Your task to perform on an android device: install app "Adobe Express: Graphic Design" Image 0: 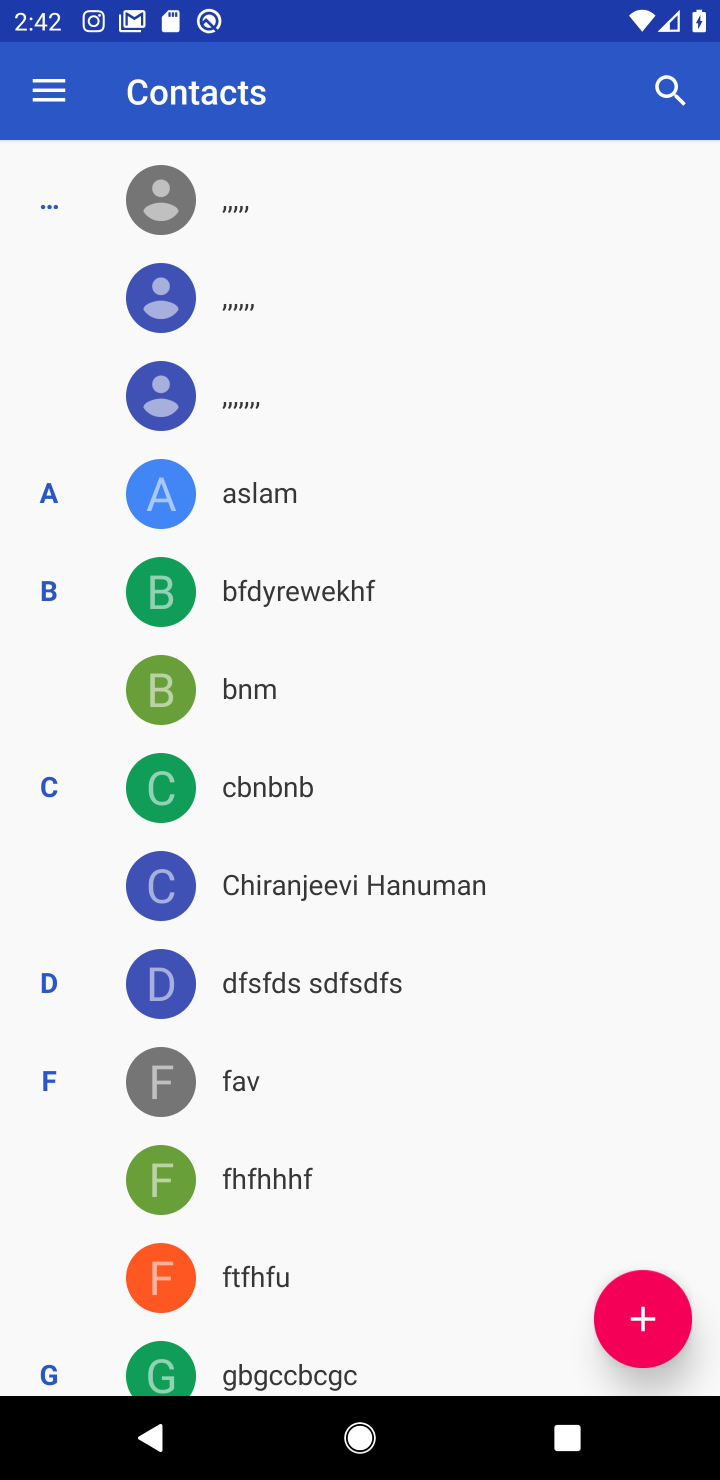
Step 0: press home button
Your task to perform on an android device: install app "Adobe Express: Graphic Design" Image 1: 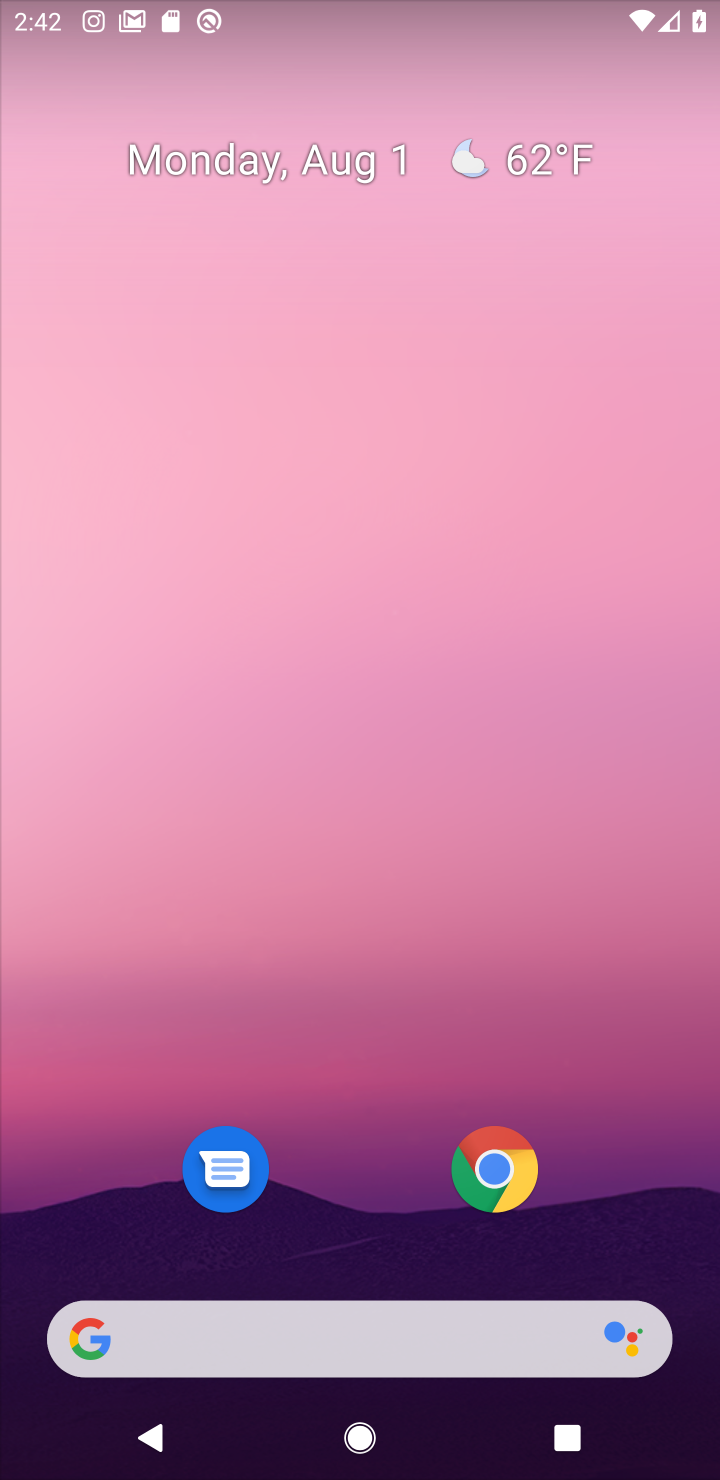
Step 1: drag from (338, 1013) to (346, 220)
Your task to perform on an android device: install app "Adobe Express: Graphic Design" Image 2: 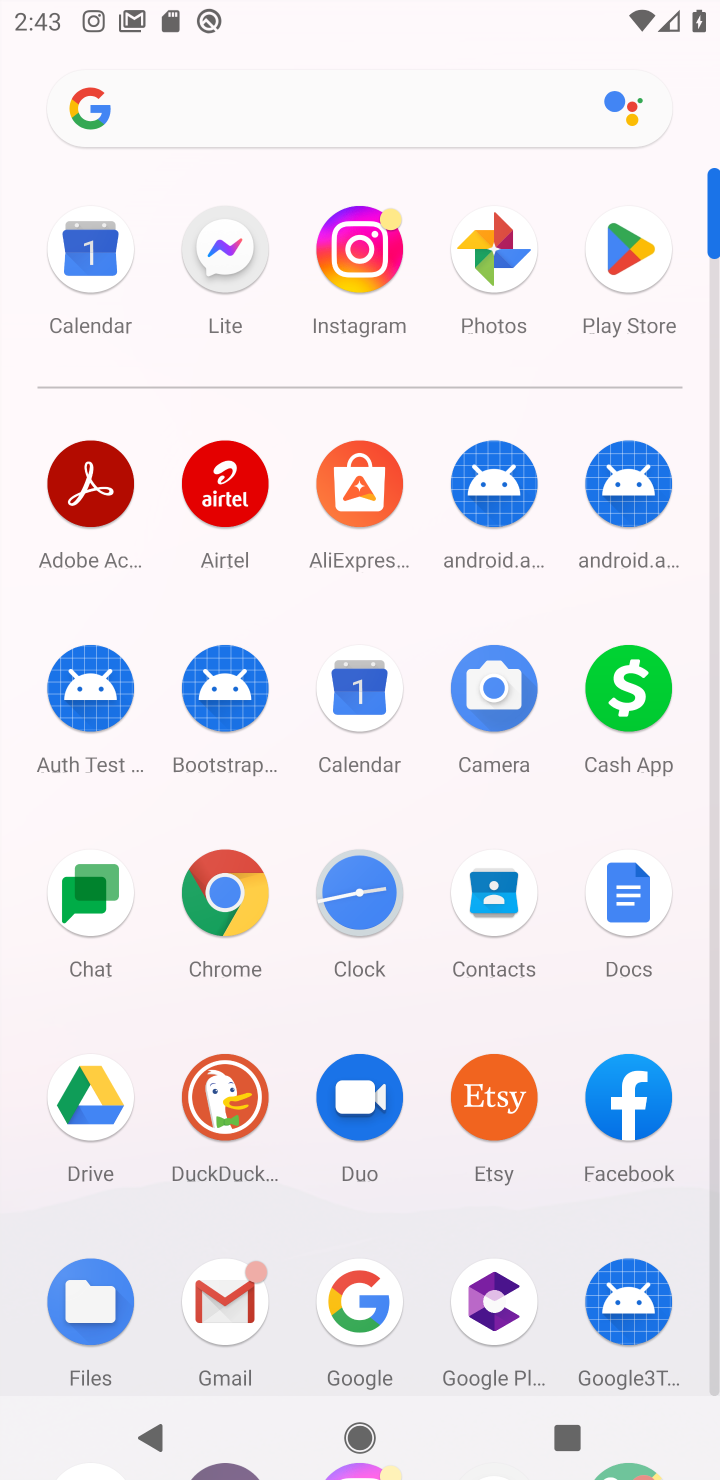
Step 2: click (644, 265)
Your task to perform on an android device: install app "Adobe Express: Graphic Design" Image 3: 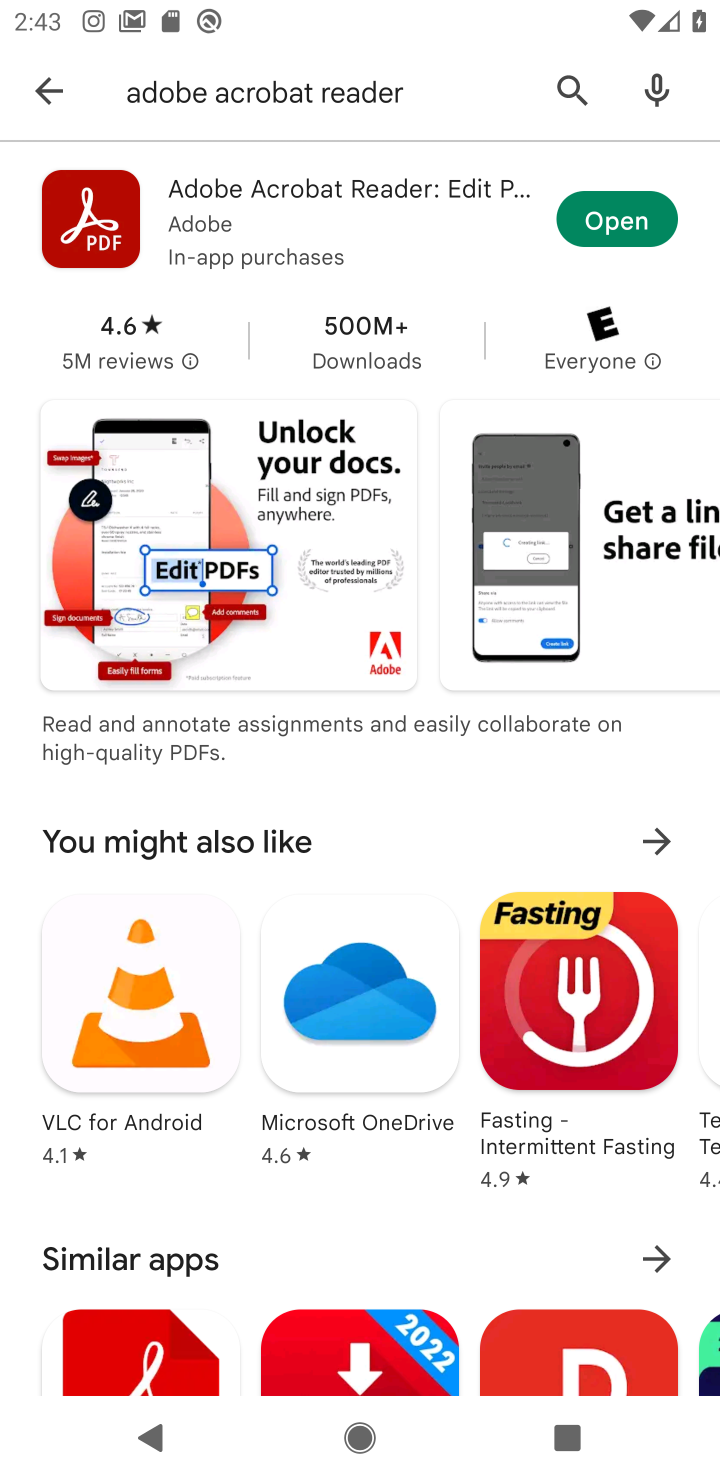
Step 3: click (47, 99)
Your task to perform on an android device: install app "Adobe Express: Graphic Design" Image 4: 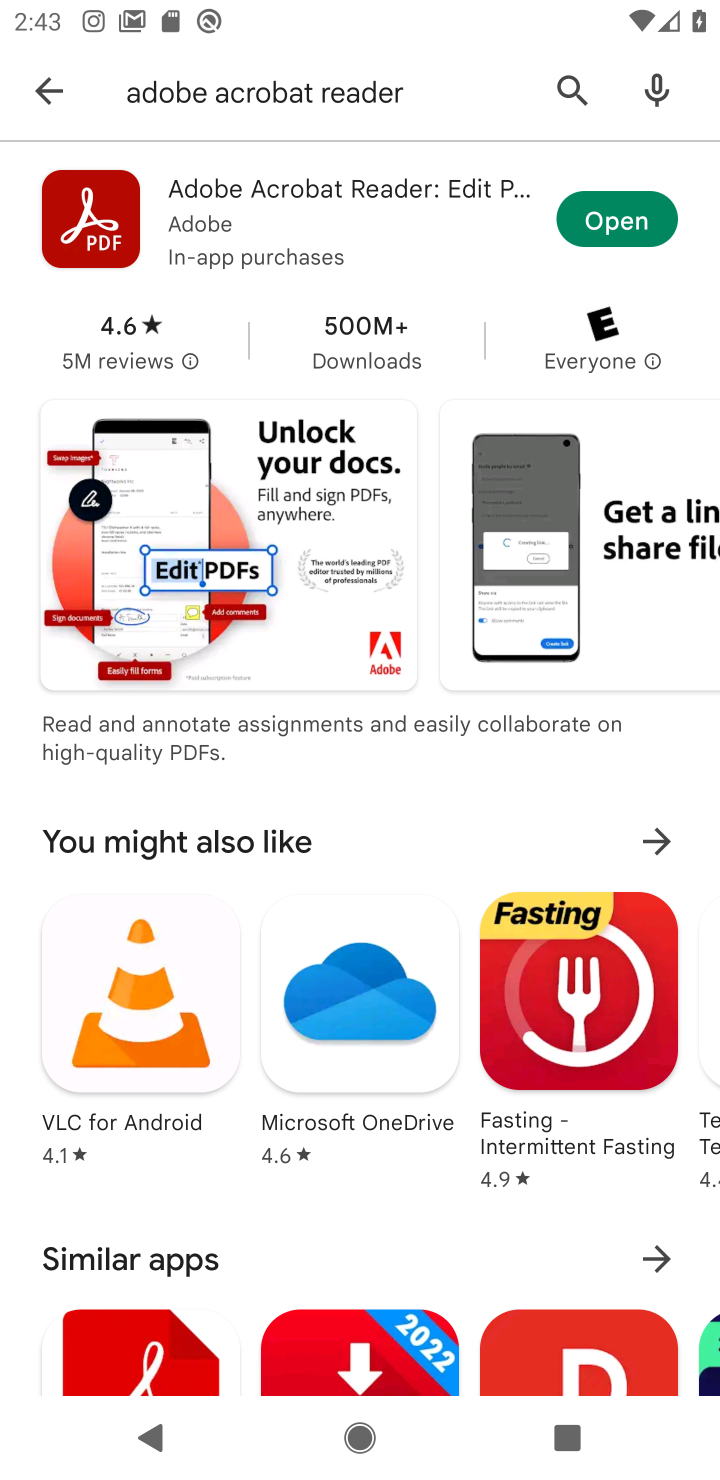
Step 4: click (47, 99)
Your task to perform on an android device: install app "Adobe Express: Graphic Design" Image 5: 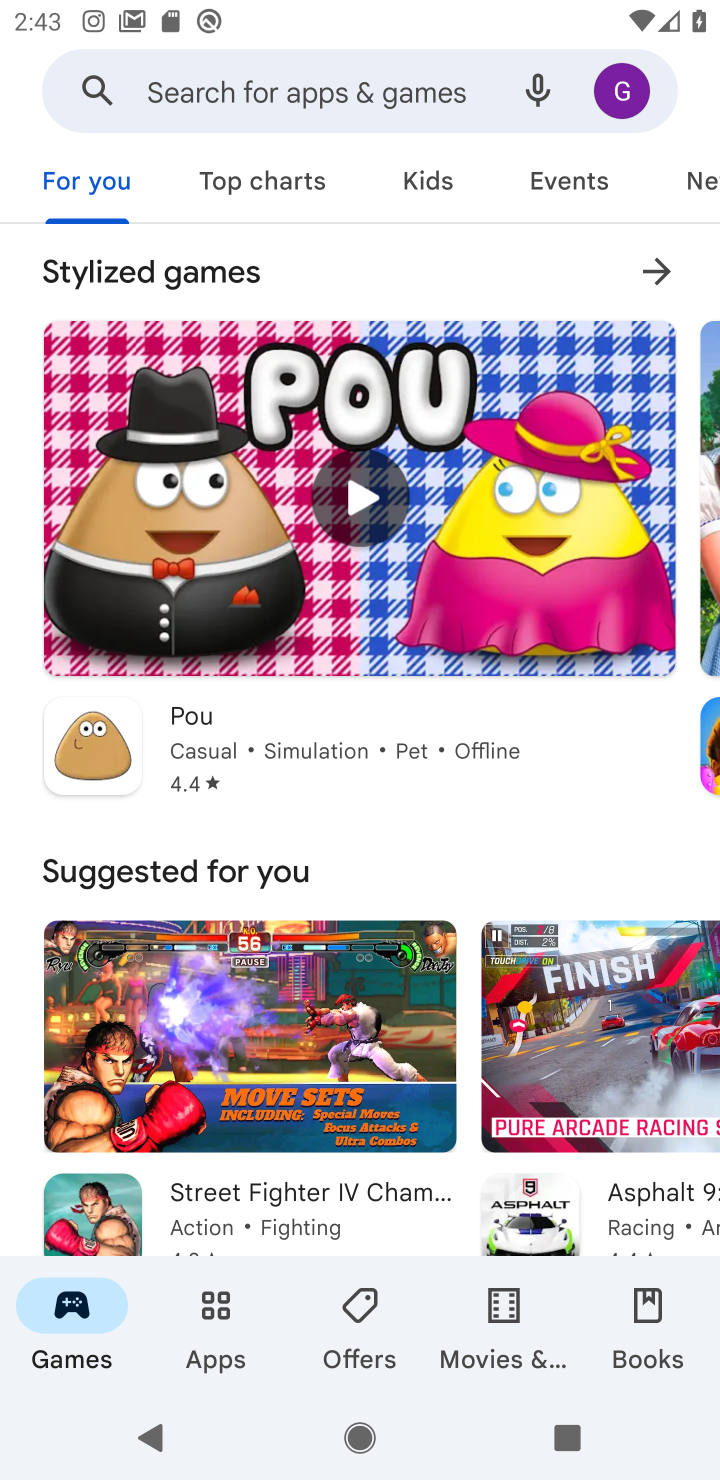
Step 5: click (179, 108)
Your task to perform on an android device: install app "Adobe Express: Graphic Design" Image 6: 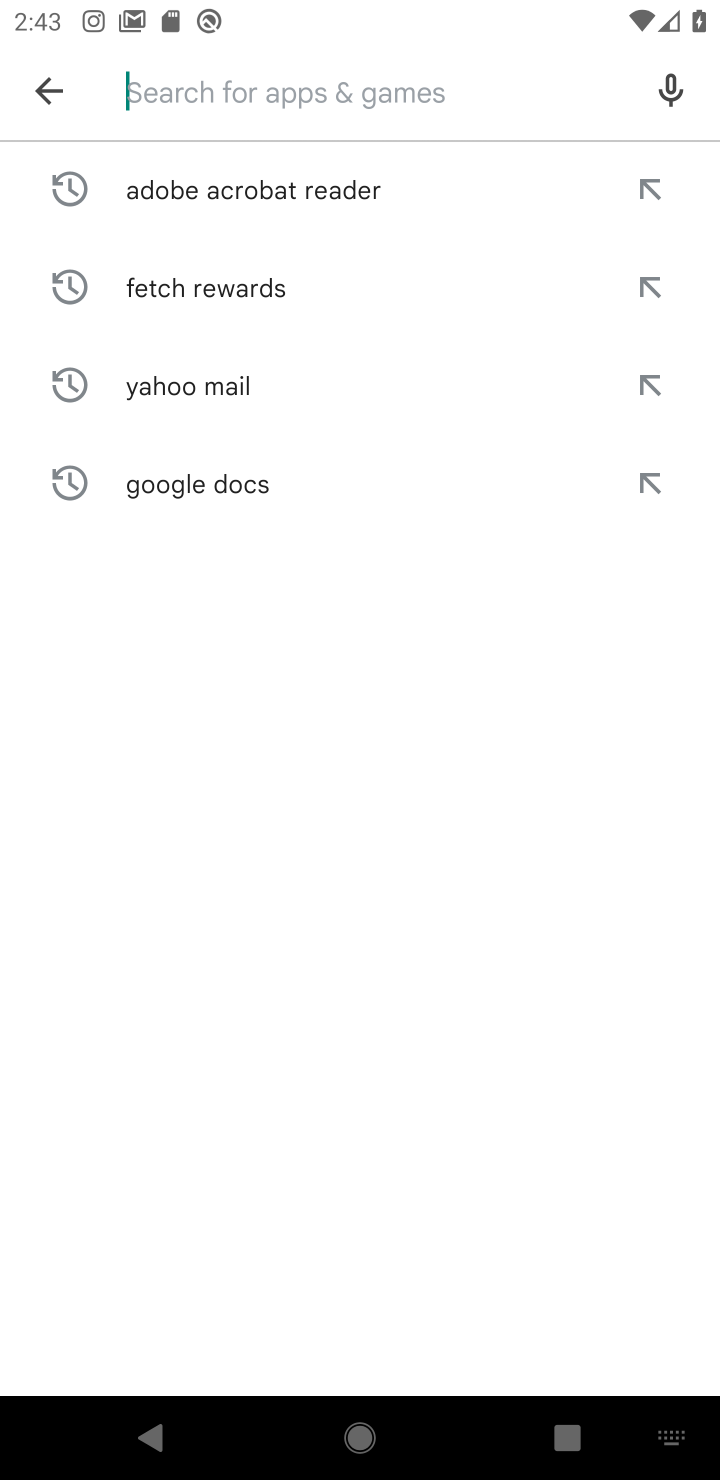
Step 6: type "Adobe Express: Graphic Design"
Your task to perform on an android device: install app "Adobe Express: Graphic Design" Image 7: 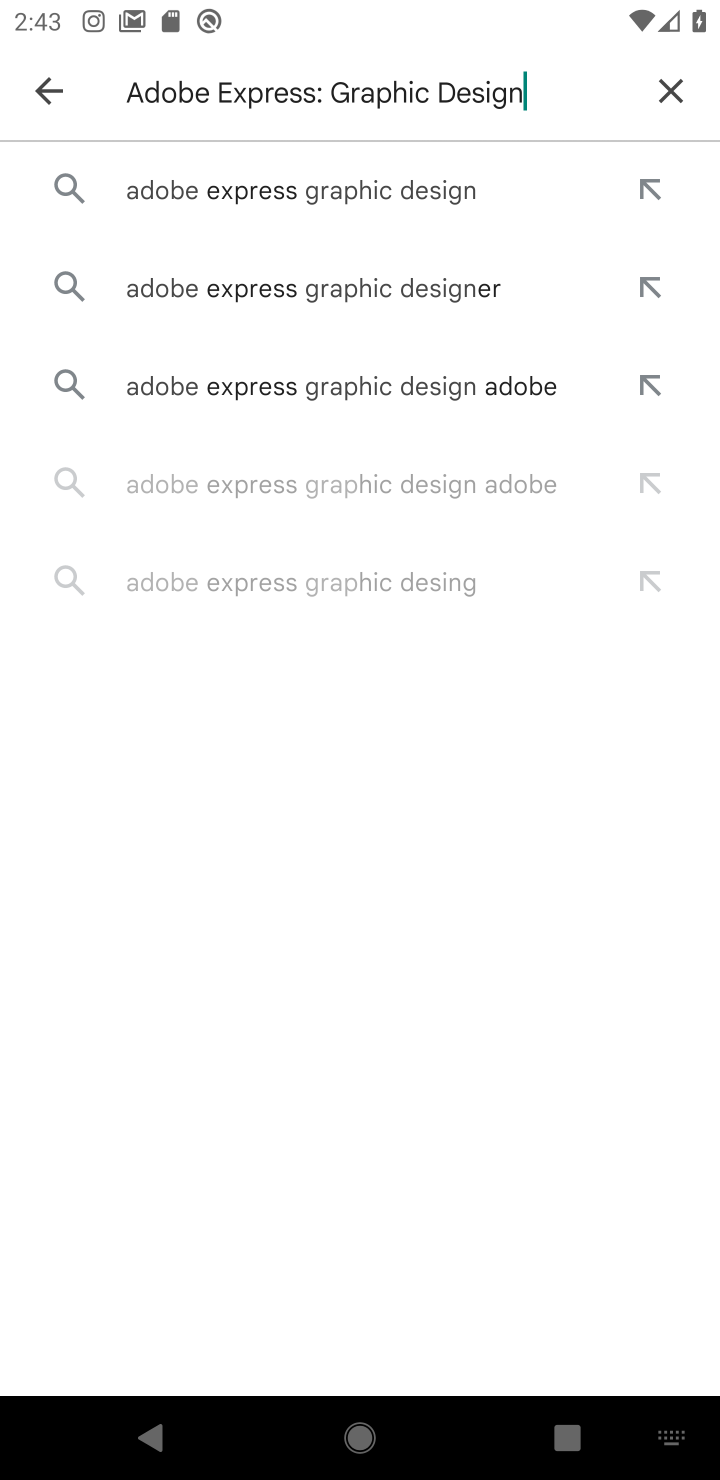
Step 7: click (230, 189)
Your task to perform on an android device: install app "Adobe Express: Graphic Design" Image 8: 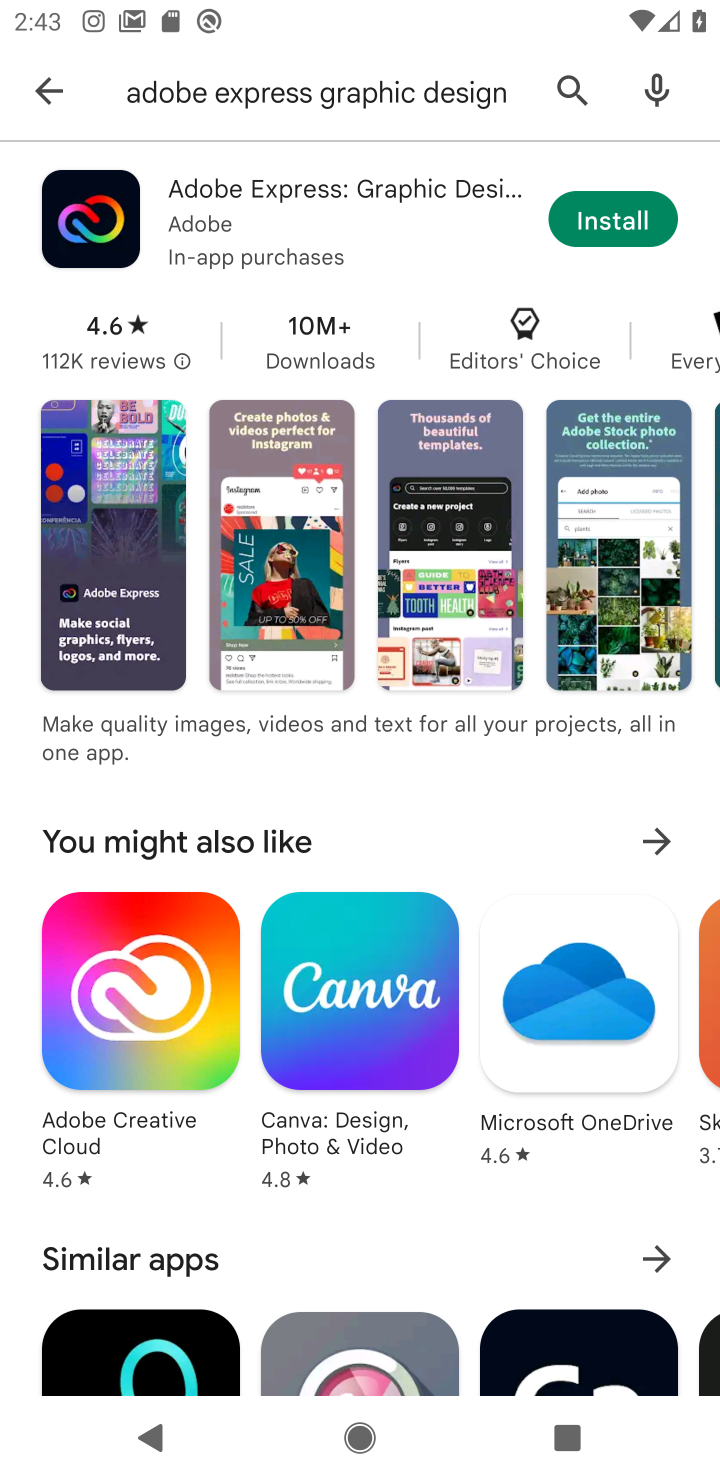
Step 8: click (595, 207)
Your task to perform on an android device: install app "Adobe Express: Graphic Design" Image 9: 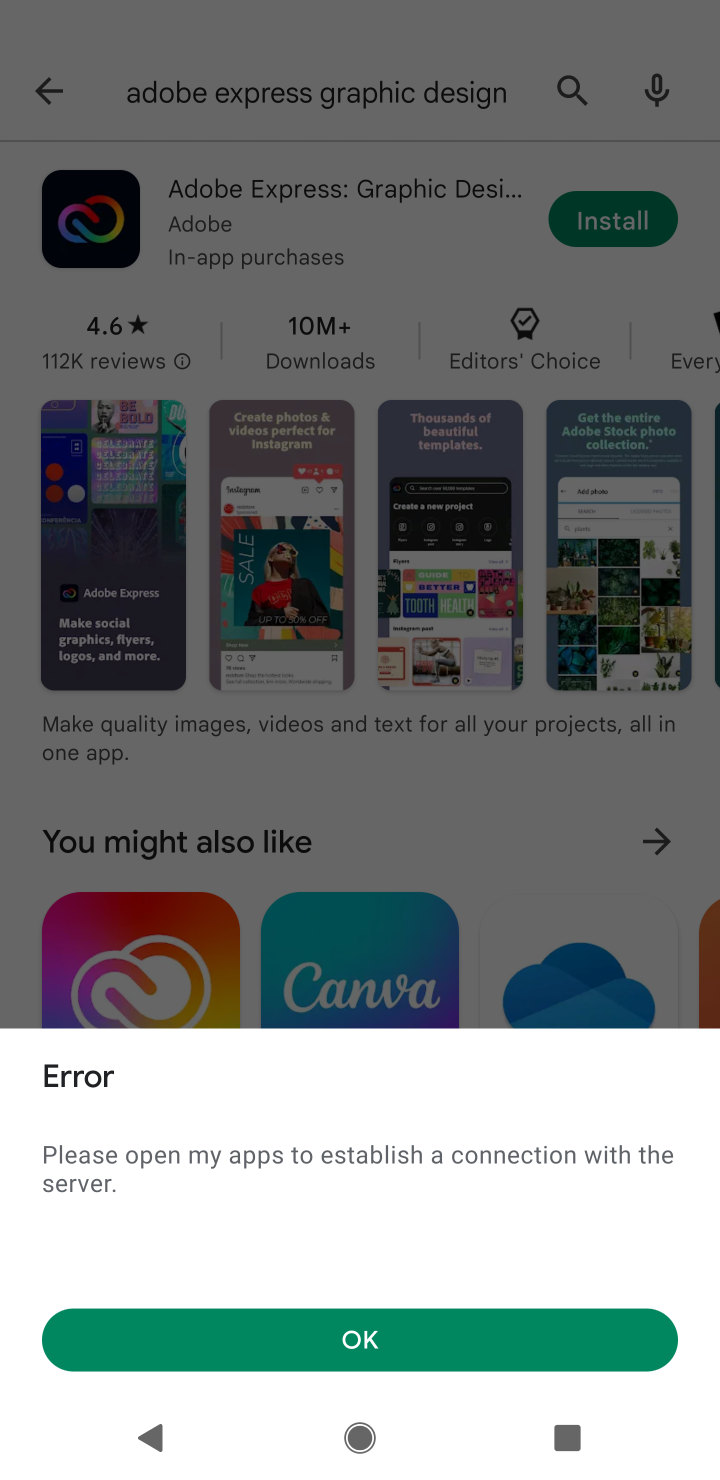
Step 9: click (362, 1335)
Your task to perform on an android device: install app "Adobe Express: Graphic Design" Image 10: 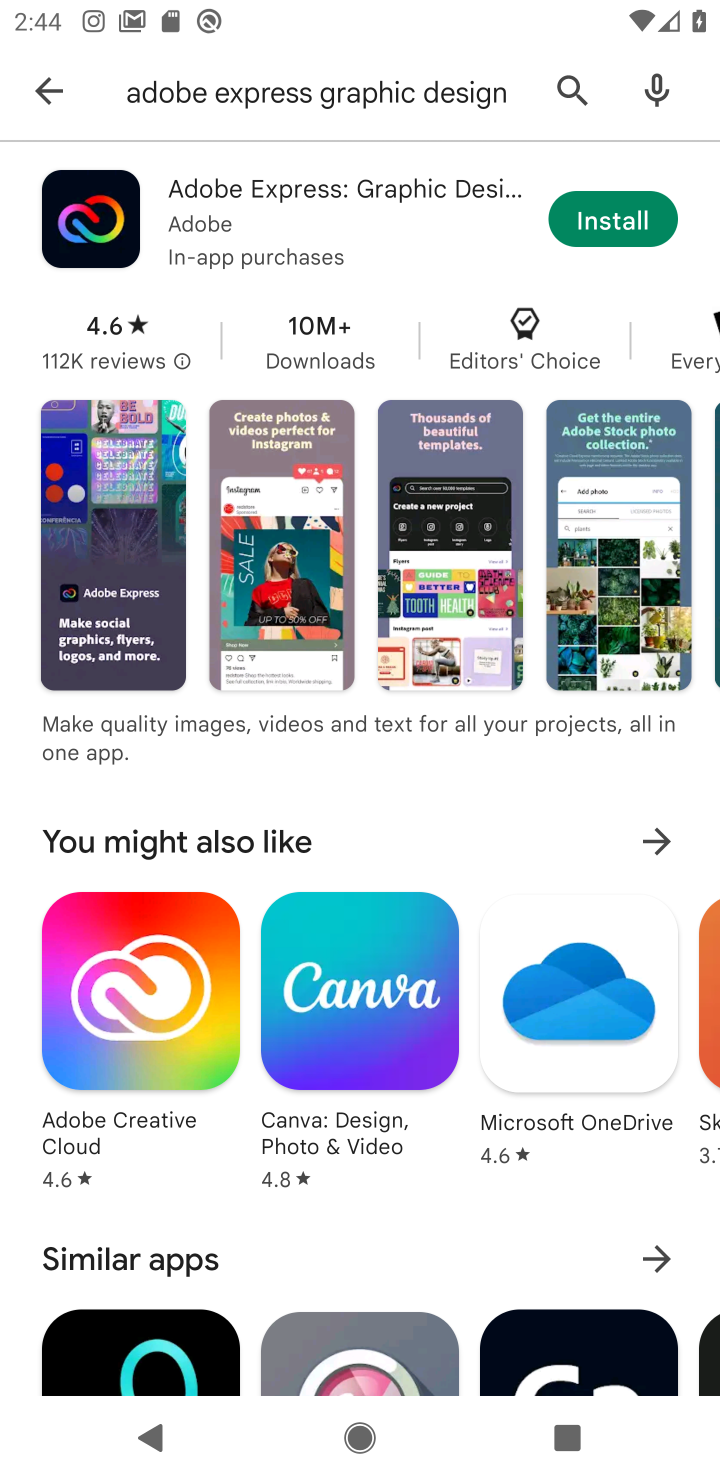
Step 10: task complete